Your task to perform on an android device: change text size in settings app Image 0: 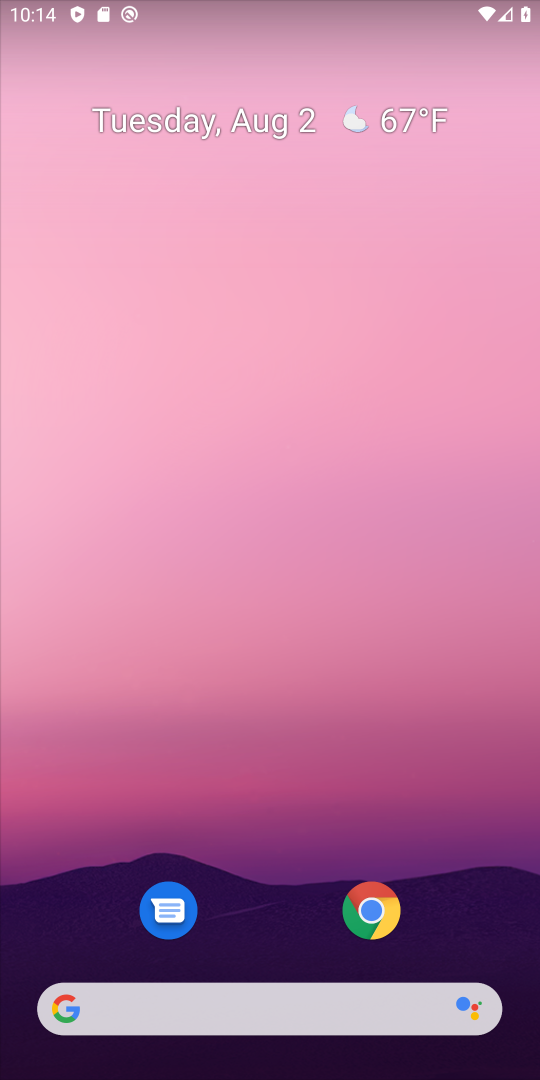
Step 0: drag from (326, 930) to (330, 366)
Your task to perform on an android device: change text size in settings app Image 1: 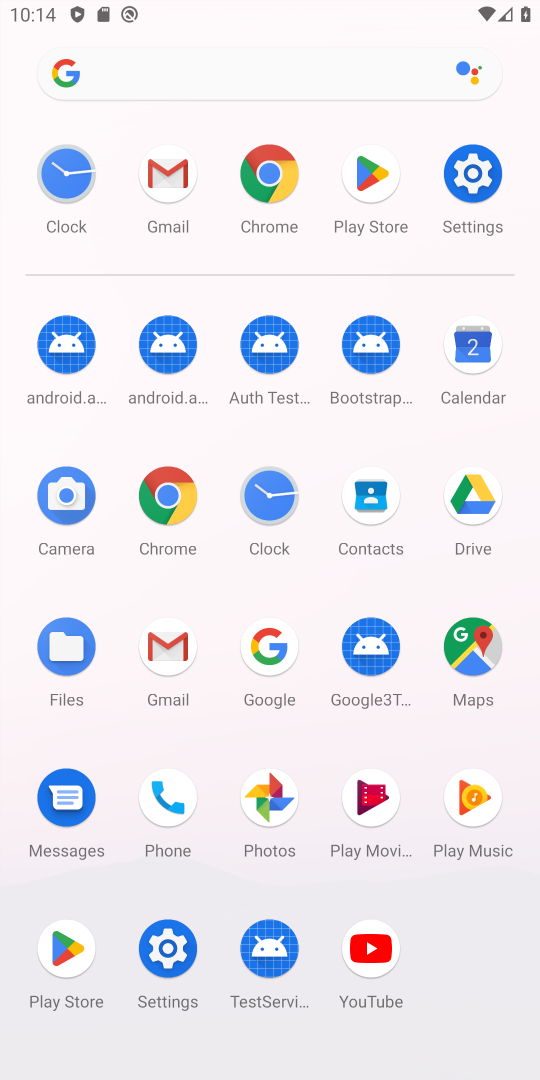
Step 1: click (471, 165)
Your task to perform on an android device: change text size in settings app Image 2: 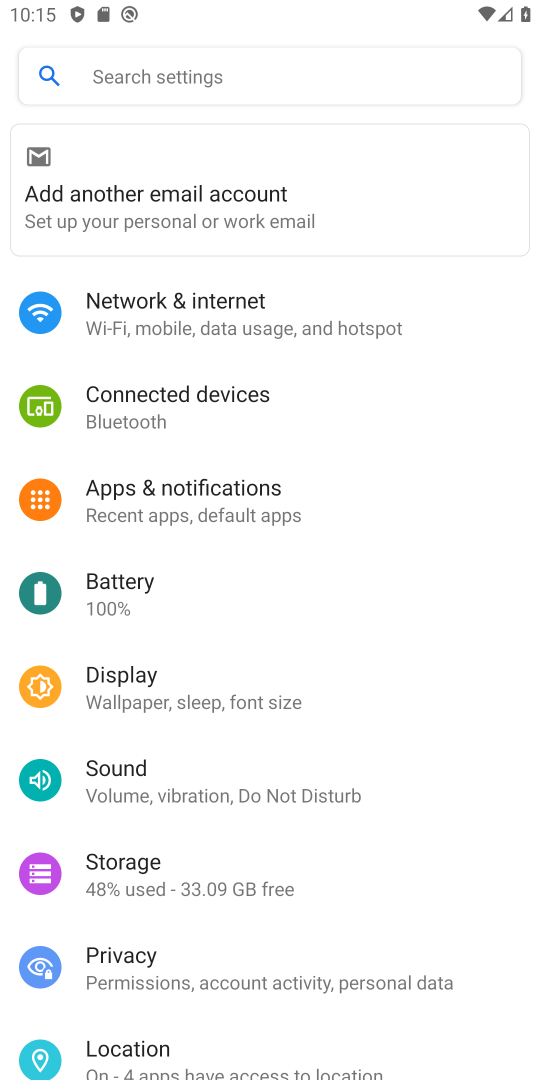
Step 2: drag from (230, 947) to (271, 313)
Your task to perform on an android device: change text size in settings app Image 3: 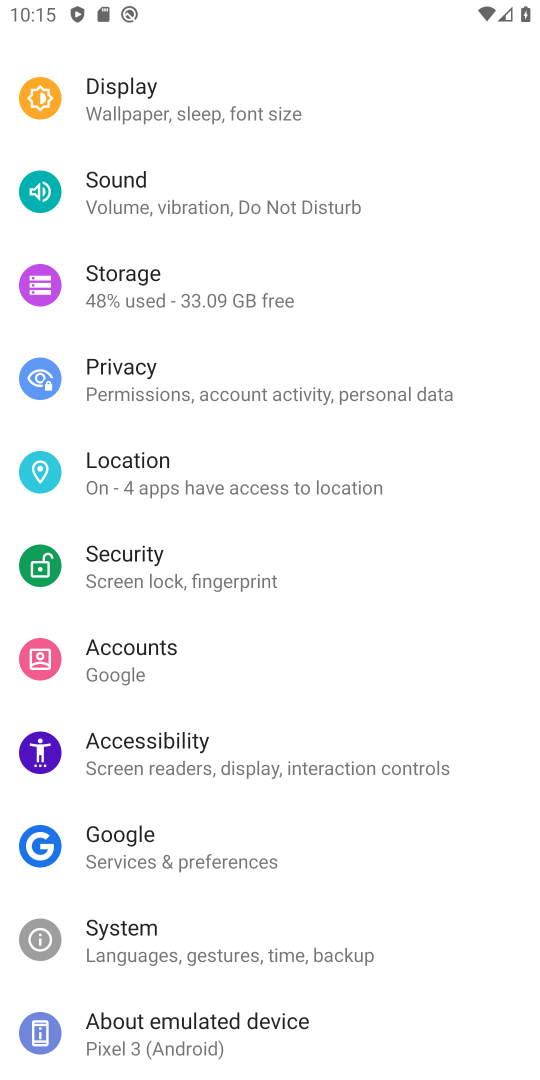
Step 3: click (211, 753)
Your task to perform on an android device: change text size in settings app Image 4: 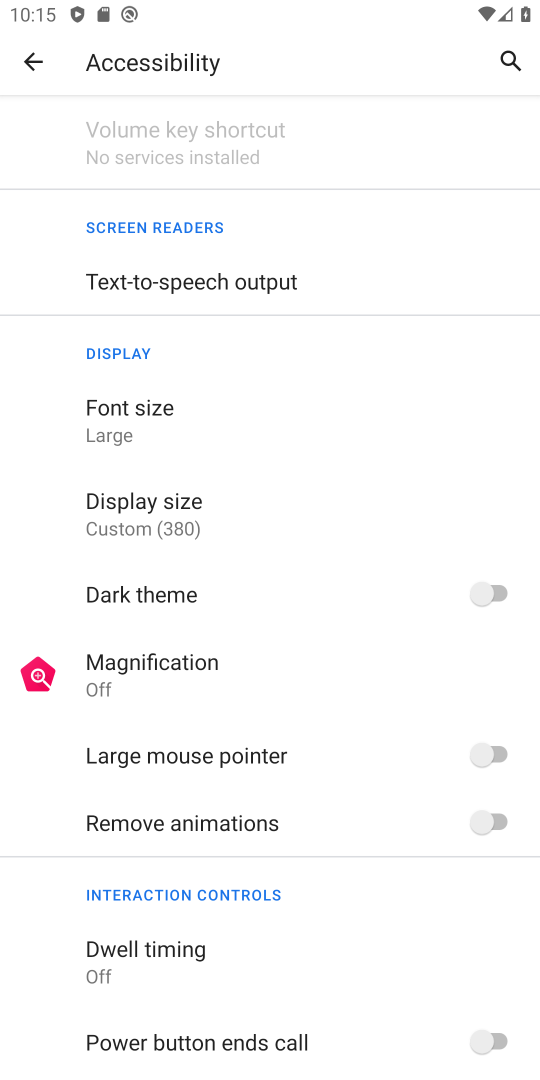
Step 4: click (141, 401)
Your task to perform on an android device: change text size in settings app Image 5: 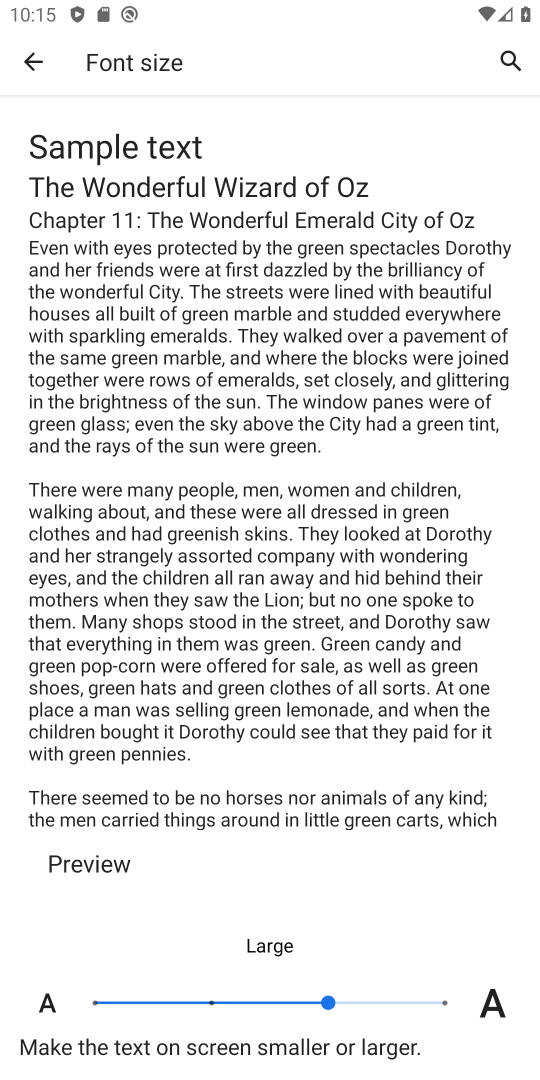
Step 5: click (205, 996)
Your task to perform on an android device: change text size in settings app Image 6: 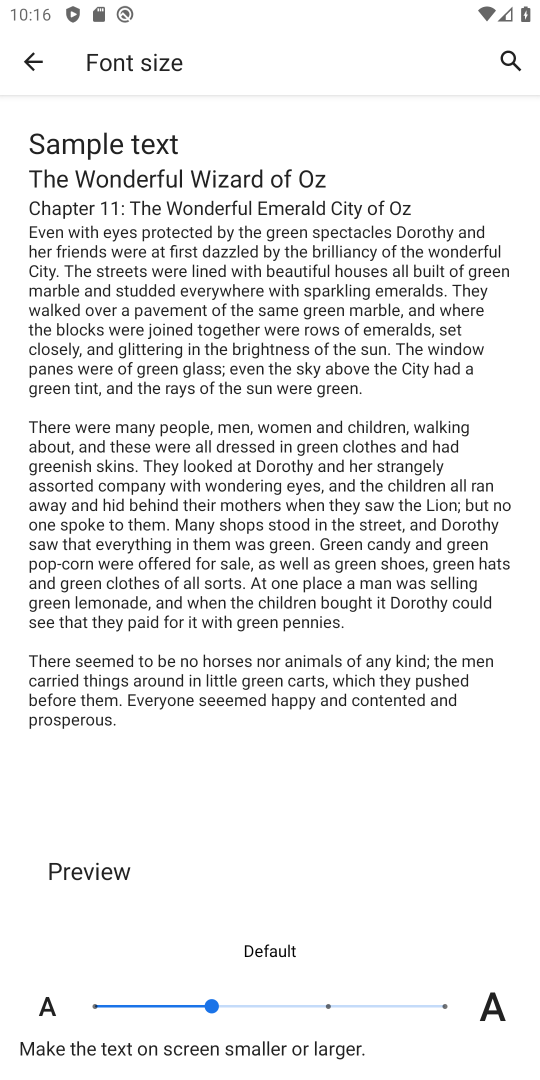
Step 6: task complete